Your task to perform on an android device: Go to settings Image 0: 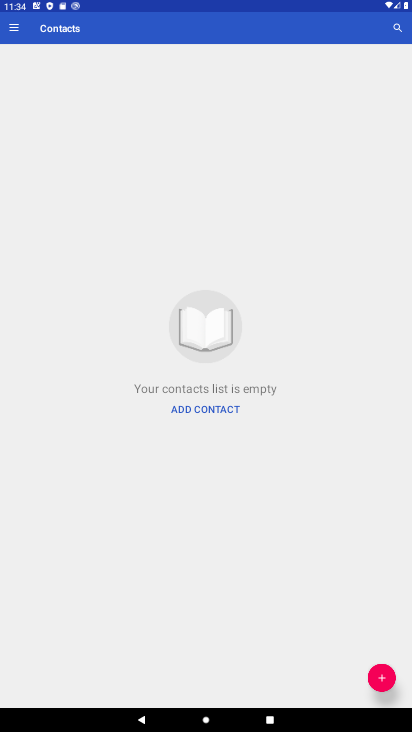
Step 0: press home button
Your task to perform on an android device: Go to settings Image 1: 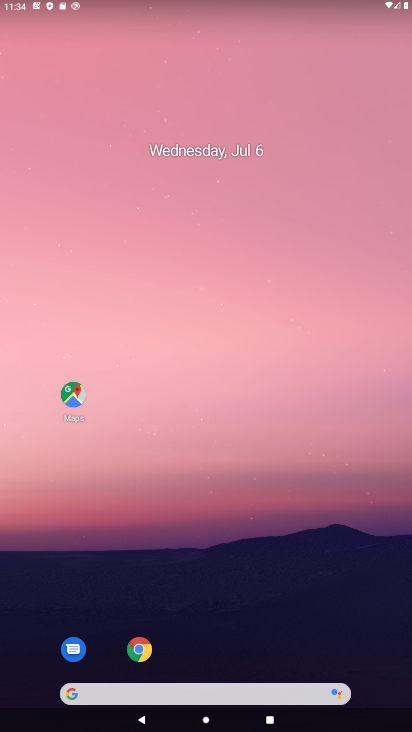
Step 1: drag from (20, 704) to (266, 12)
Your task to perform on an android device: Go to settings Image 2: 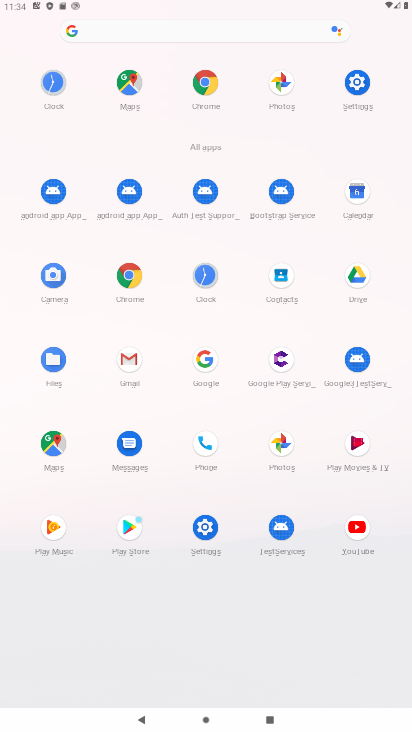
Step 2: click (202, 532)
Your task to perform on an android device: Go to settings Image 3: 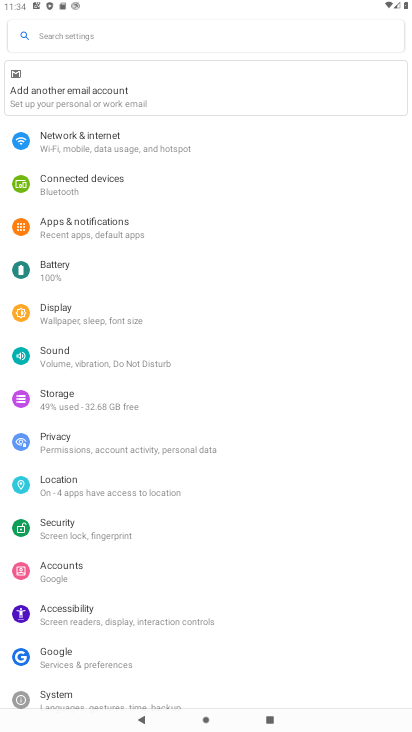
Step 3: task complete